Your task to perform on an android device: change notifications settings Image 0: 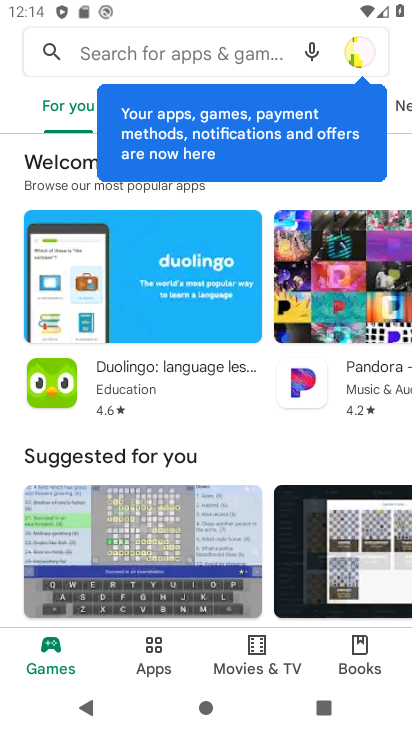
Step 0: press home button
Your task to perform on an android device: change notifications settings Image 1: 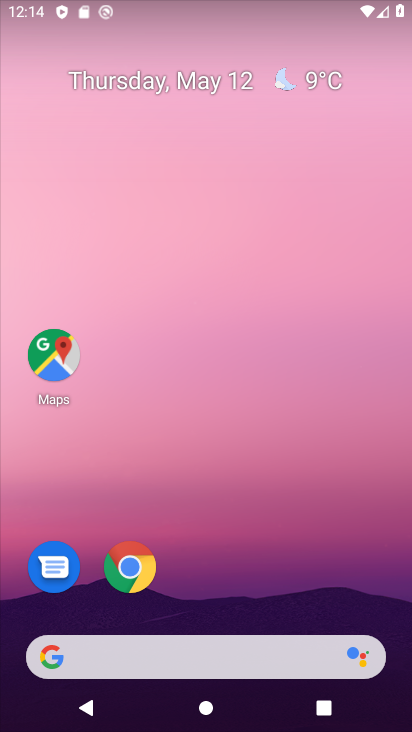
Step 1: drag from (178, 628) to (238, 261)
Your task to perform on an android device: change notifications settings Image 2: 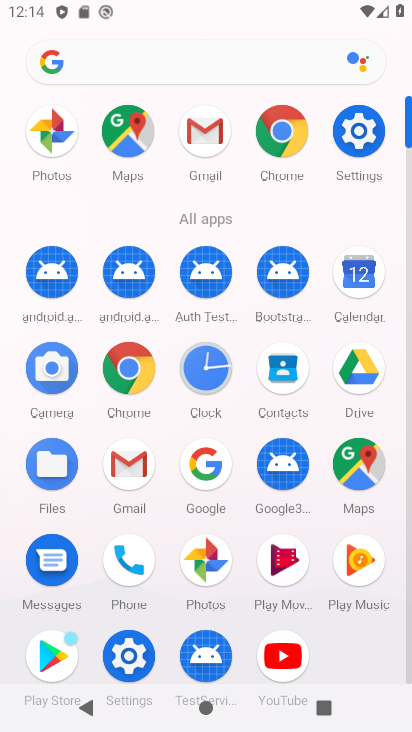
Step 2: click (349, 152)
Your task to perform on an android device: change notifications settings Image 3: 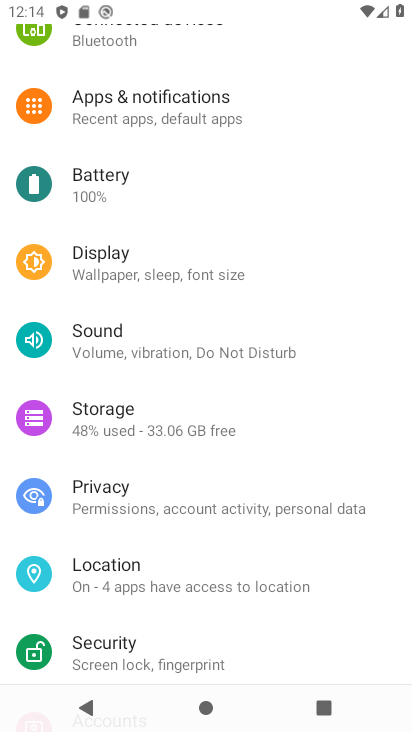
Step 3: click (200, 123)
Your task to perform on an android device: change notifications settings Image 4: 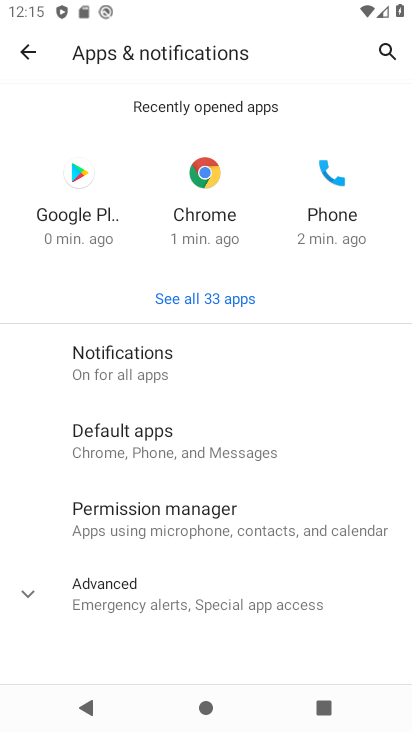
Step 4: click (187, 375)
Your task to perform on an android device: change notifications settings Image 5: 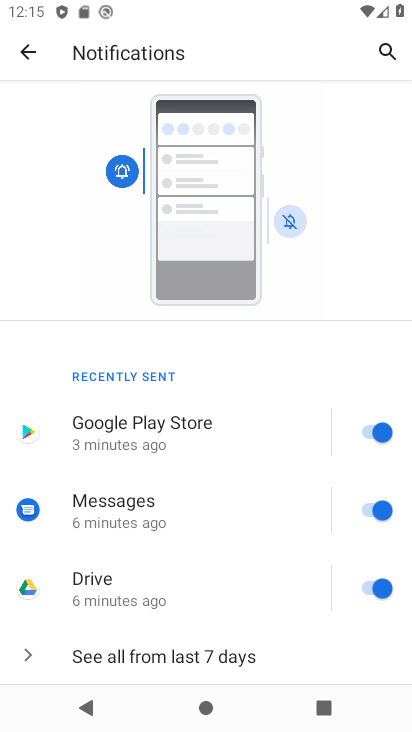
Step 5: drag from (230, 514) to (288, 170)
Your task to perform on an android device: change notifications settings Image 6: 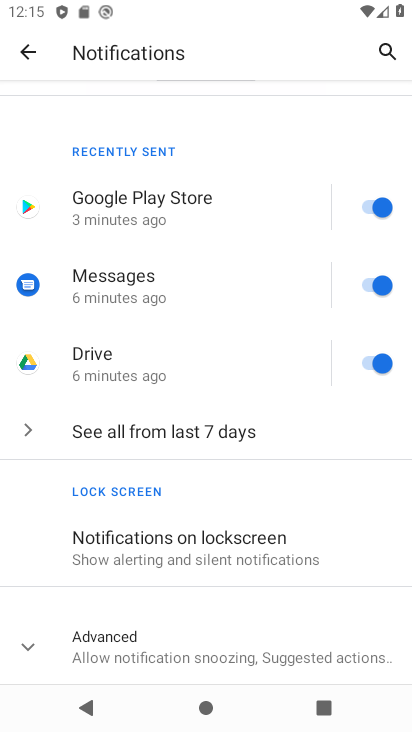
Step 6: drag from (161, 622) to (170, 259)
Your task to perform on an android device: change notifications settings Image 7: 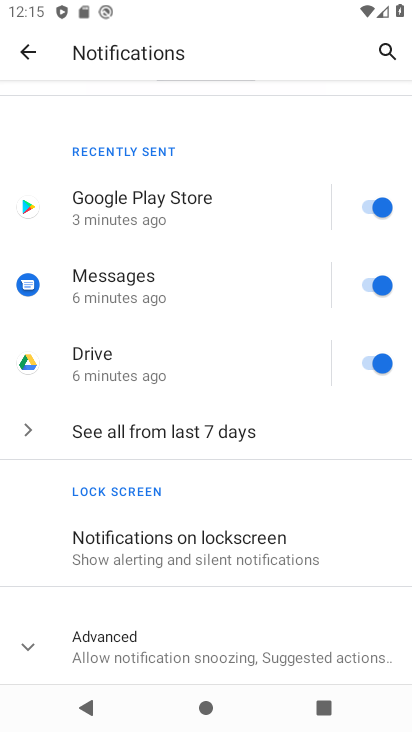
Step 7: drag from (217, 281) to (262, 609)
Your task to perform on an android device: change notifications settings Image 8: 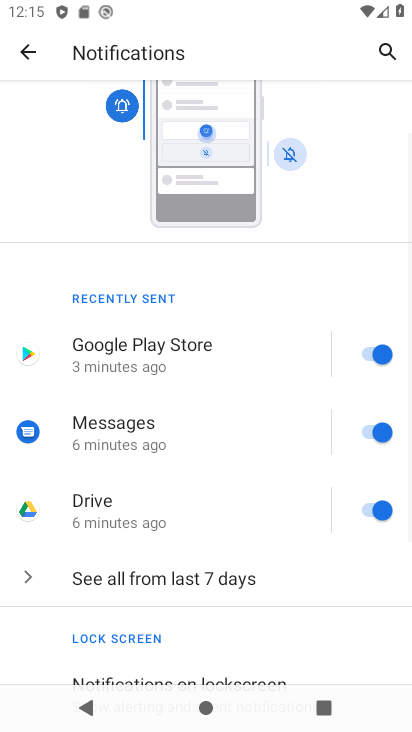
Step 8: click (370, 362)
Your task to perform on an android device: change notifications settings Image 9: 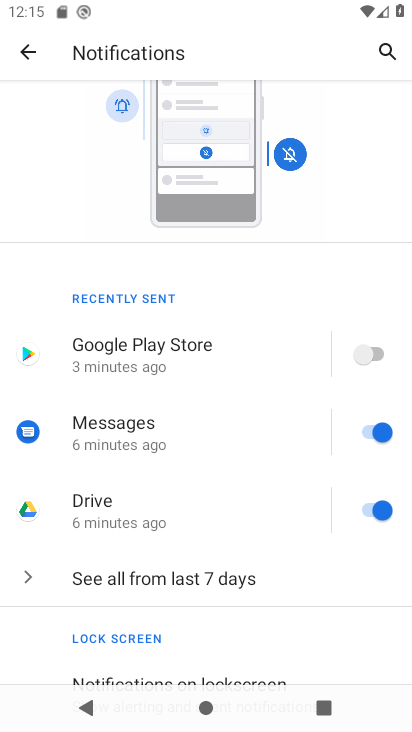
Step 9: task complete